Your task to perform on an android device: WHat are the new products by Samsung on eBay? Image 0: 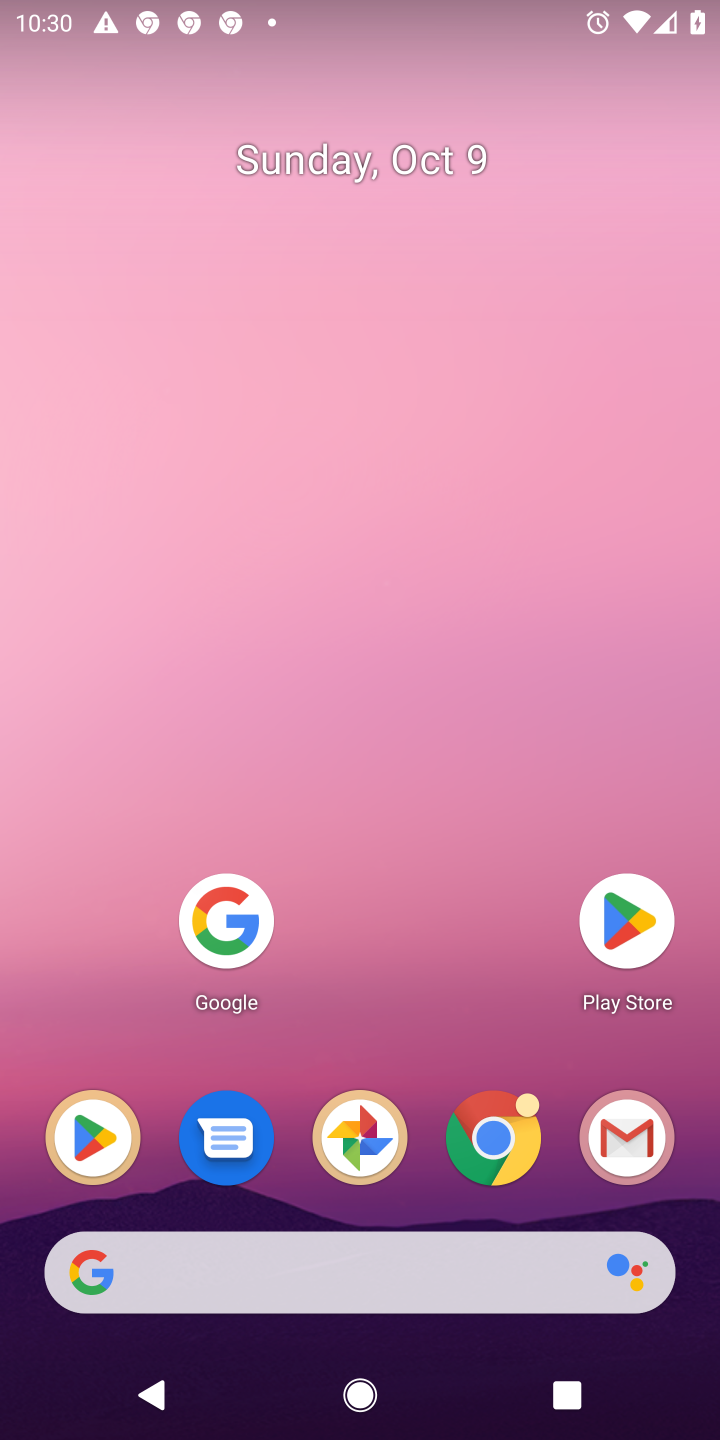
Step 0: click (242, 933)
Your task to perform on an android device: WHat are the new products by Samsung on eBay? Image 1: 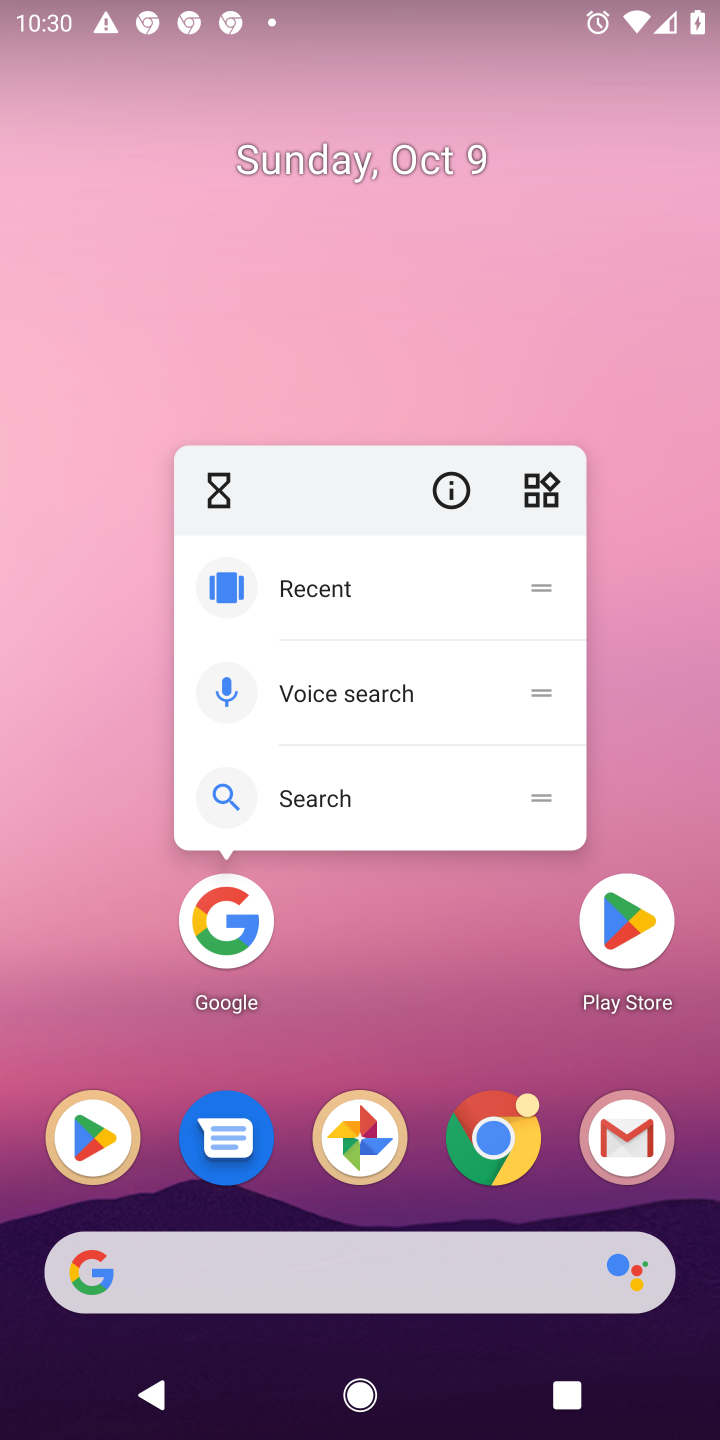
Step 1: click (232, 907)
Your task to perform on an android device: WHat are the new products by Samsung on eBay? Image 2: 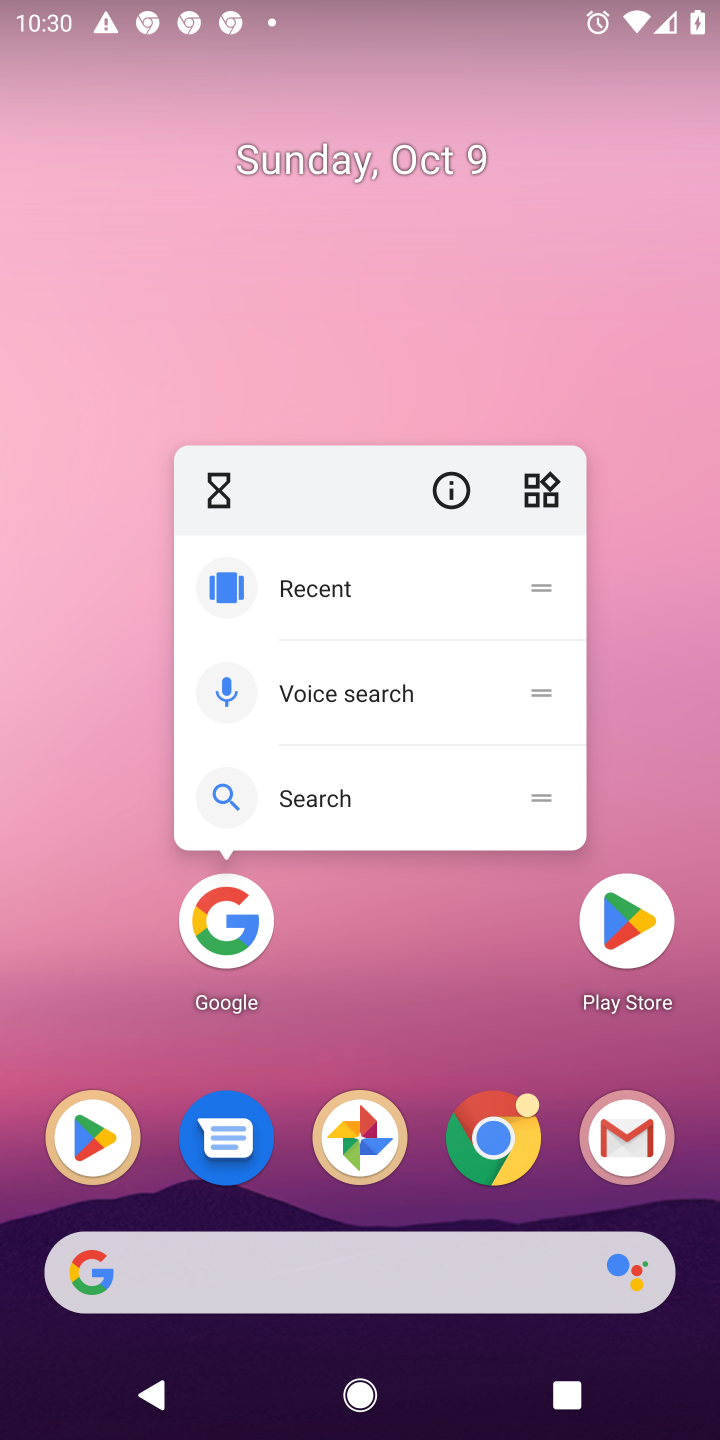
Step 2: click (232, 907)
Your task to perform on an android device: WHat are the new products by Samsung on eBay? Image 3: 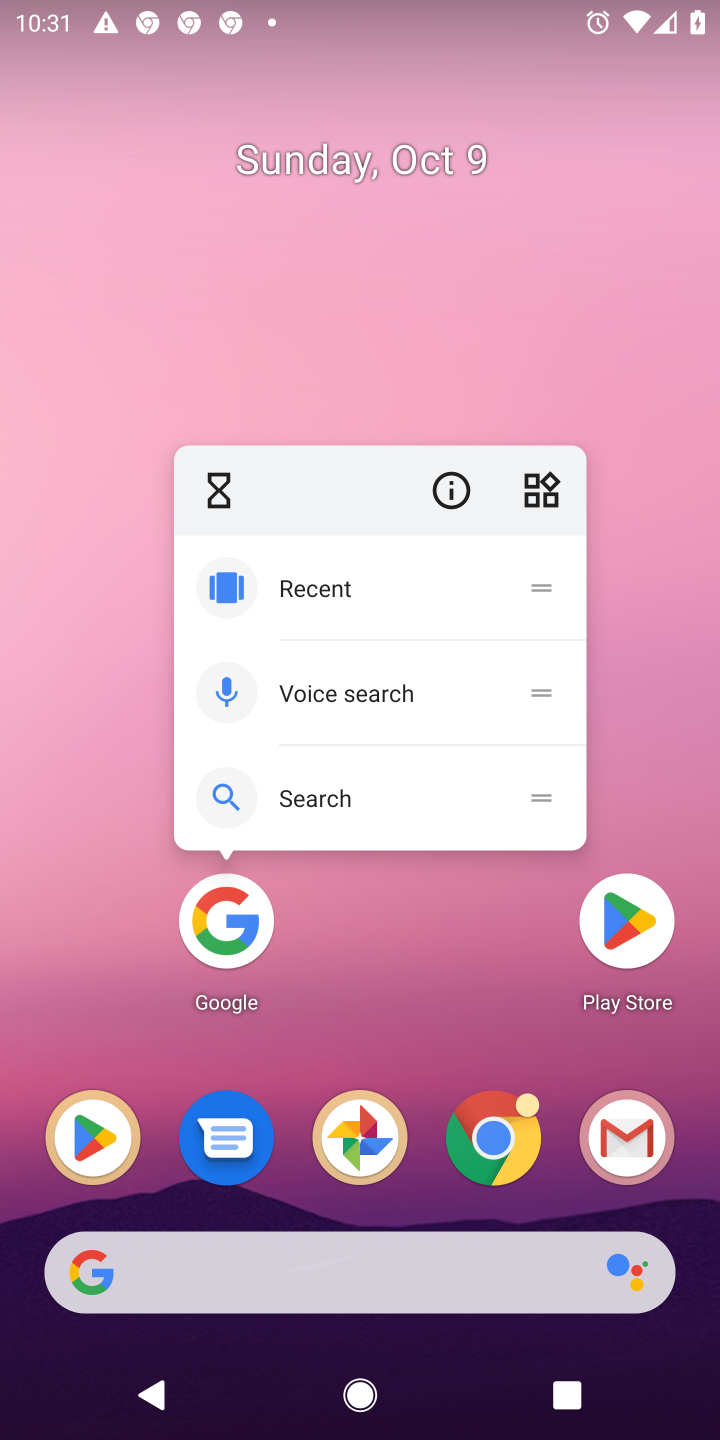
Step 3: click (221, 894)
Your task to perform on an android device: WHat are the new products by Samsung on eBay? Image 4: 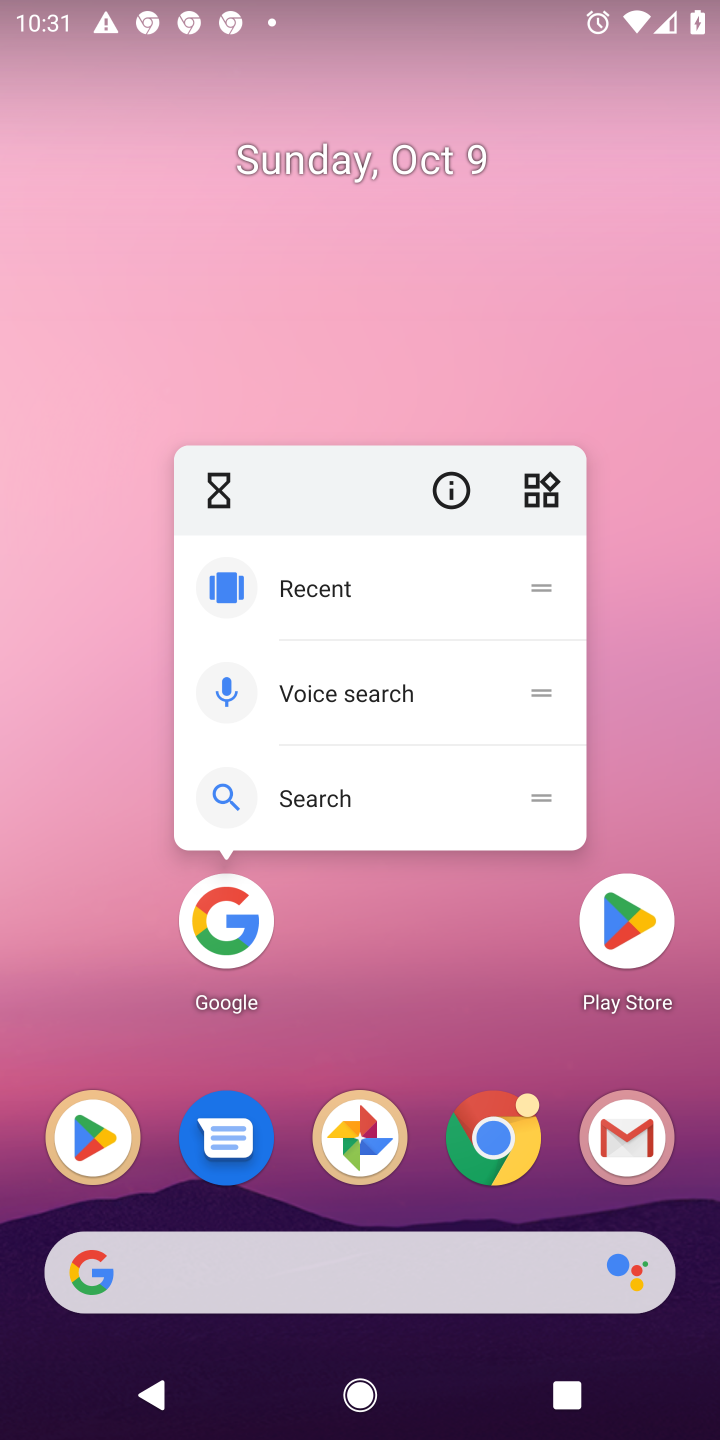
Step 4: click (221, 894)
Your task to perform on an android device: WHat are the new products by Samsung on eBay? Image 5: 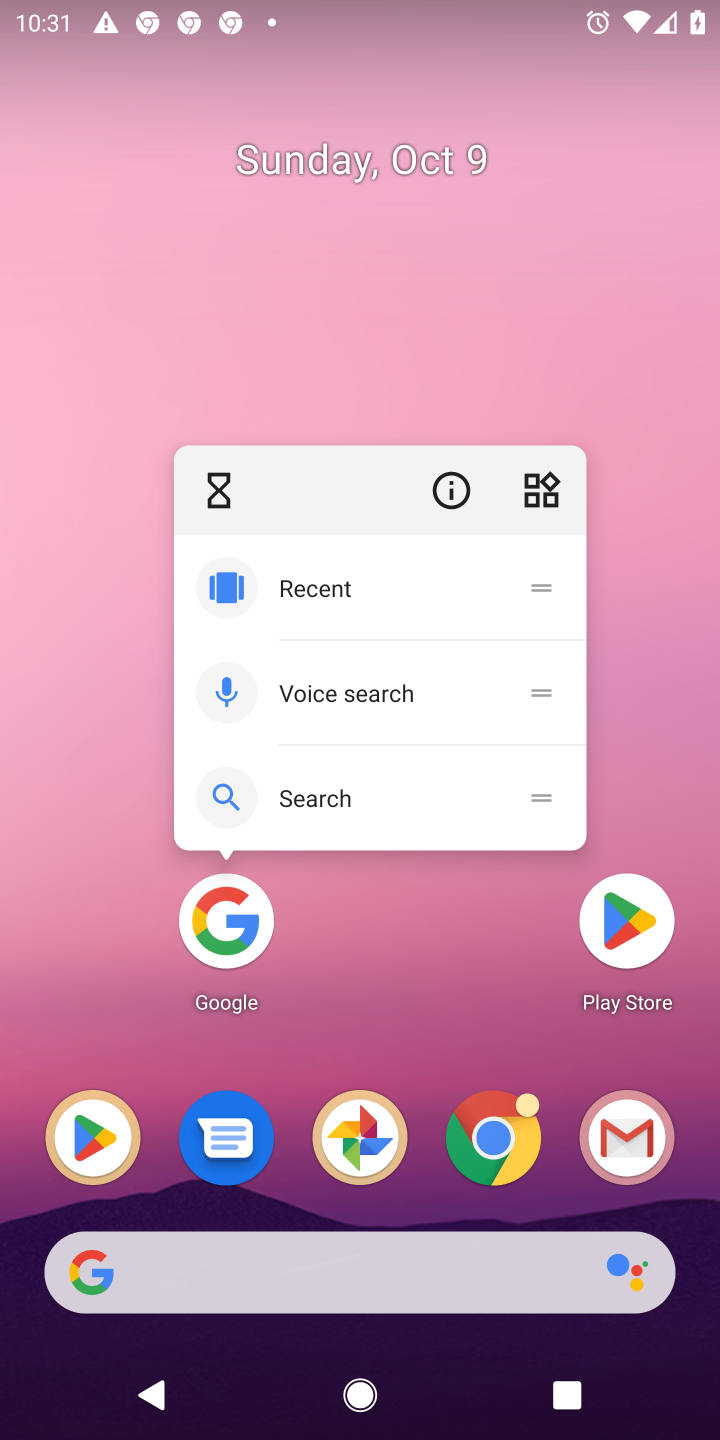
Step 5: click (221, 903)
Your task to perform on an android device: WHat are the new products by Samsung on eBay? Image 6: 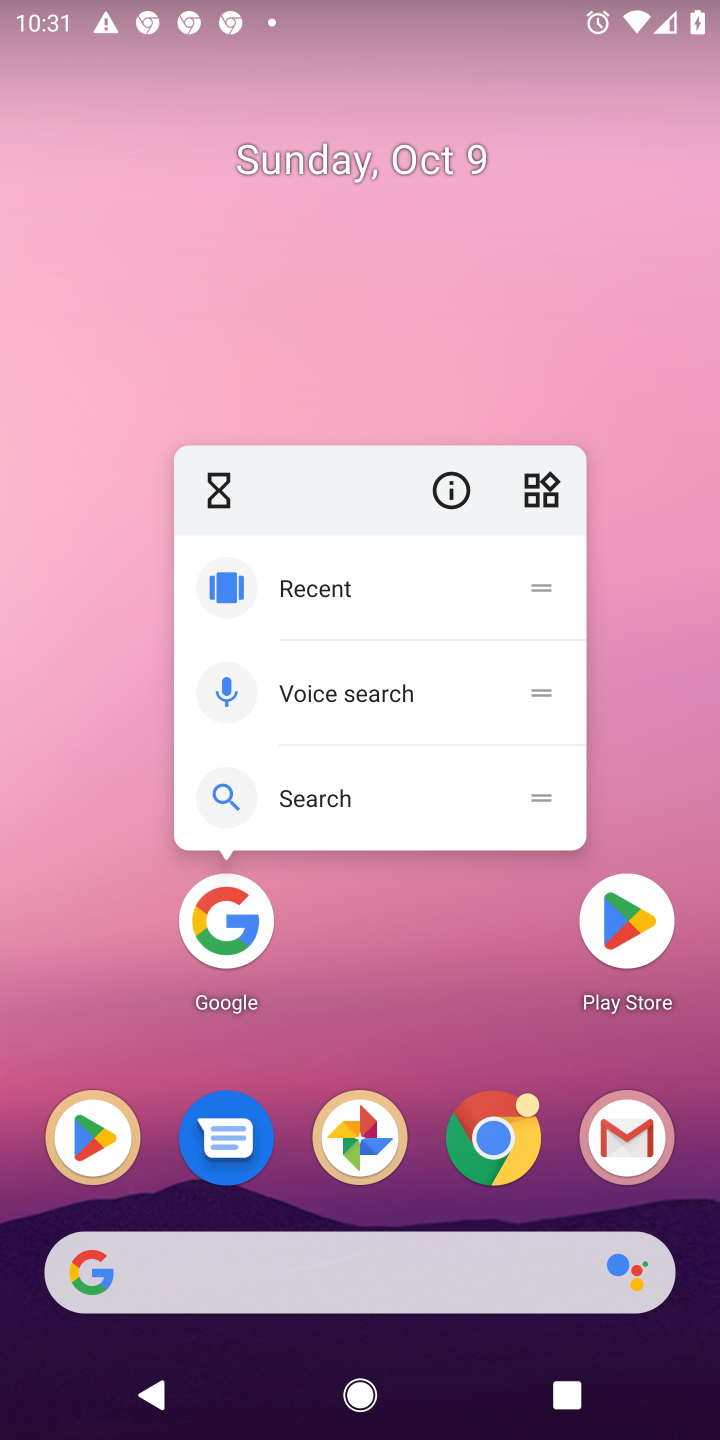
Step 6: click (221, 903)
Your task to perform on an android device: WHat are the new products by Samsung on eBay? Image 7: 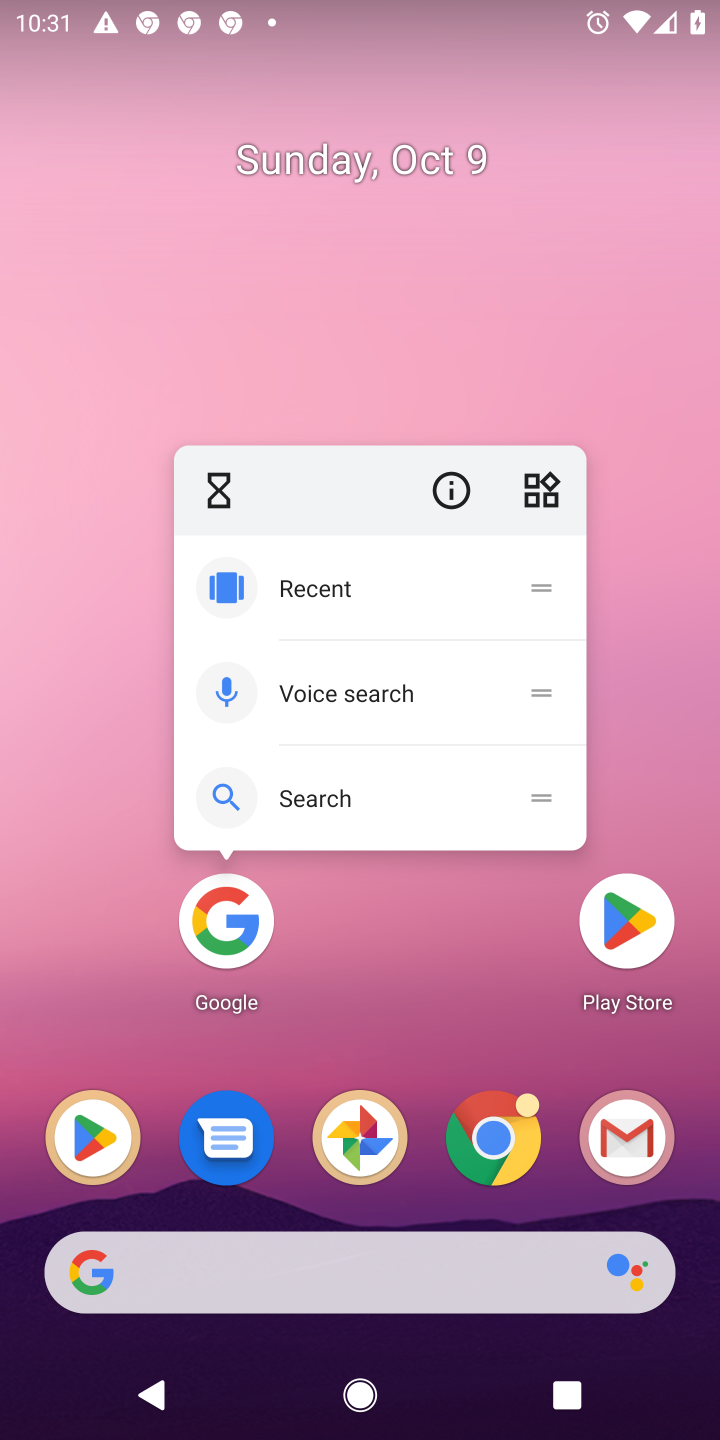
Step 7: click (221, 928)
Your task to perform on an android device: WHat are the new products by Samsung on eBay? Image 8: 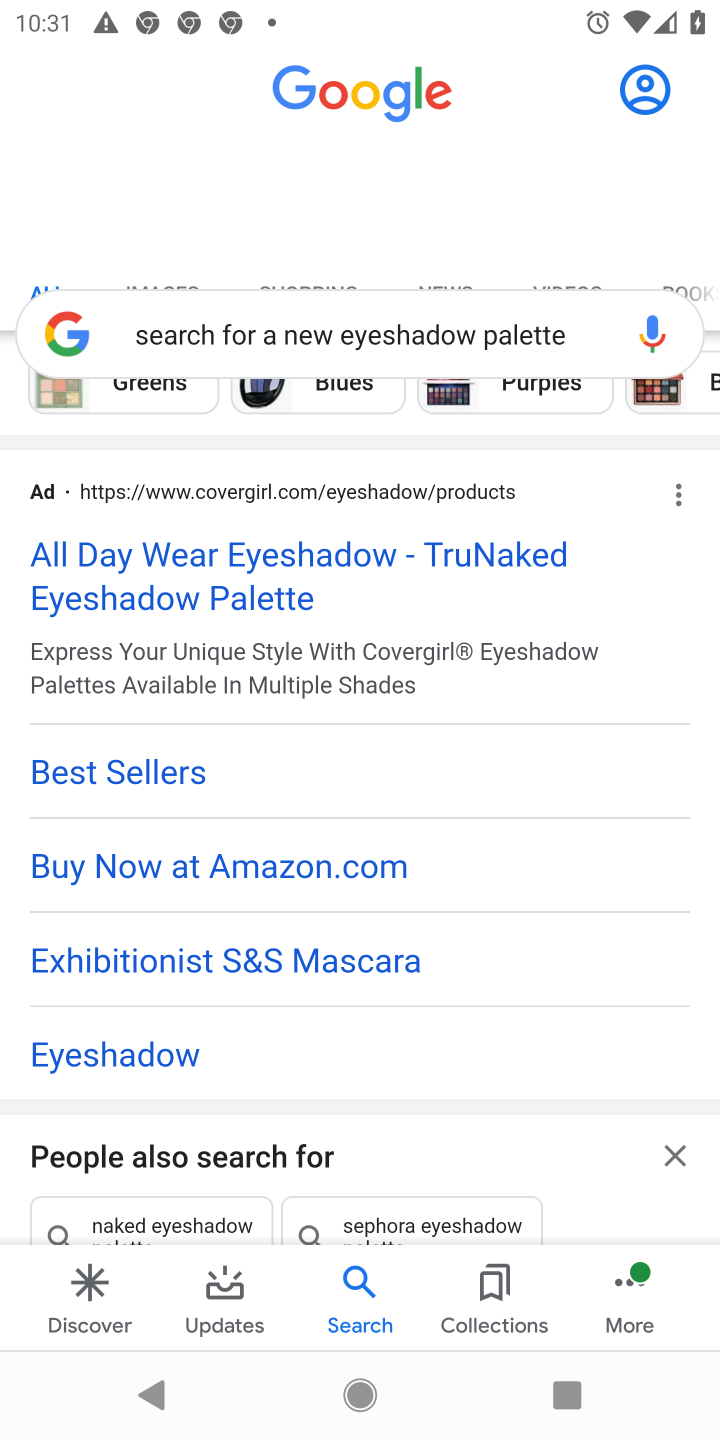
Step 8: click (373, 306)
Your task to perform on an android device: WHat are the new products by Samsung on eBay? Image 9: 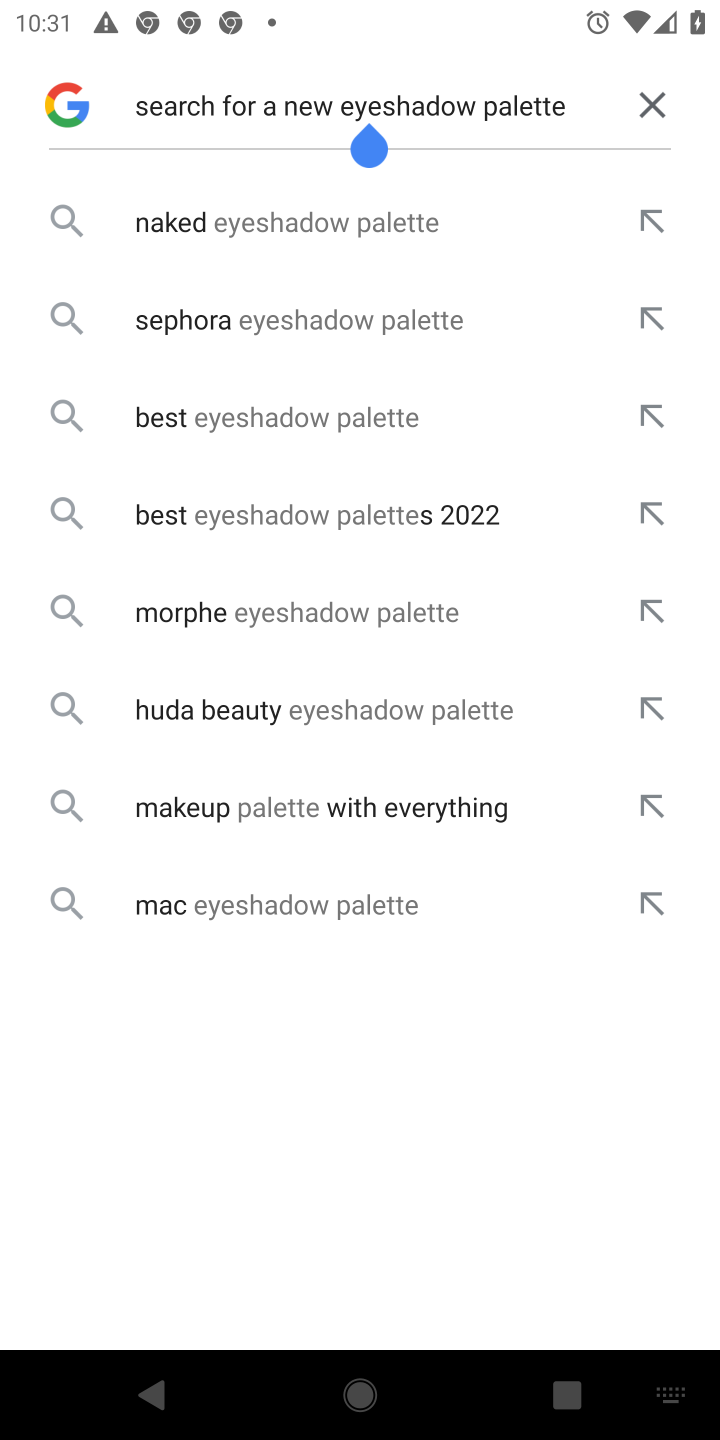
Step 9: click (642, 100)
Your task to perform on an android device: WHat are the new products by Samsung on eBay? Image 10: 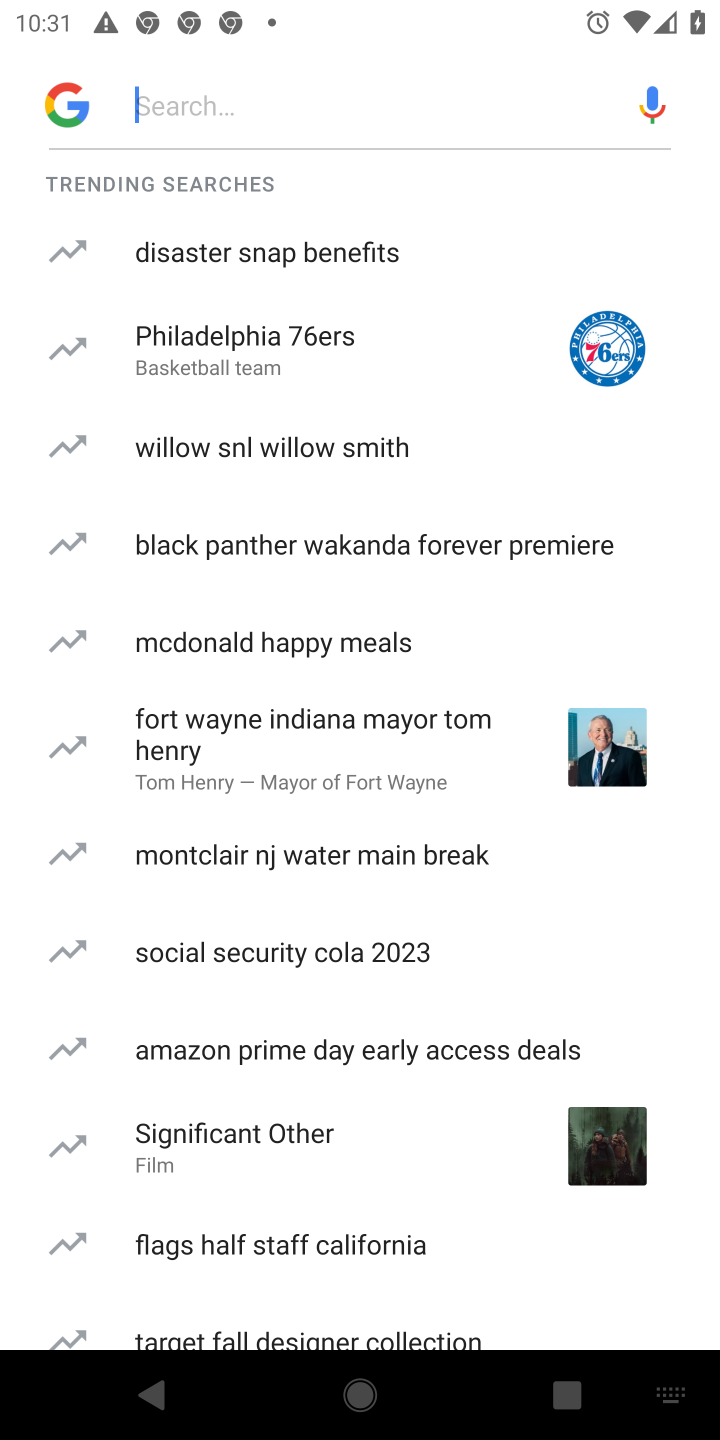
Step 10: click (195, 115)
Your task to perform on an android device: WHat are the new products by Samsung on eBay? Image 11: 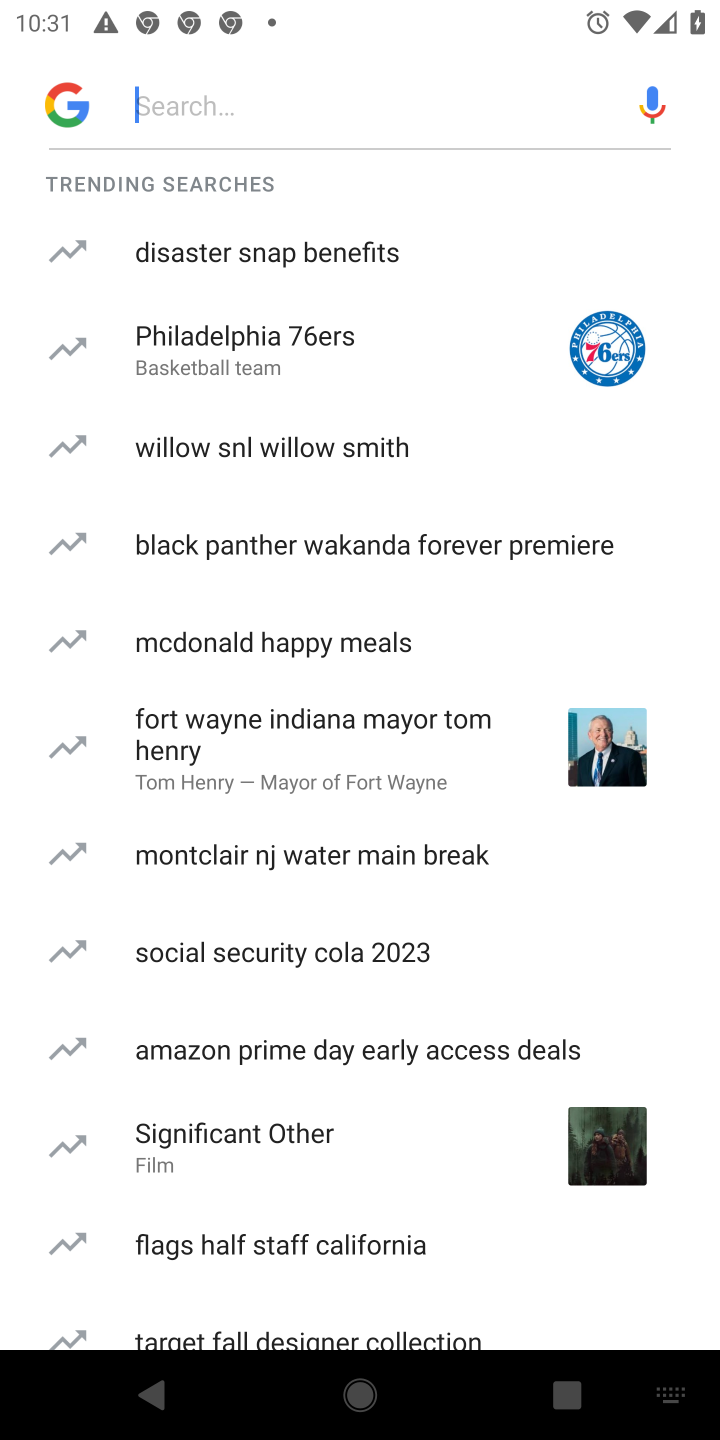
Step 11: type "WHat are the new products by Samsung on eBay? "
Your task to perform on an android device: WHat are the new products by Samsung on eBay? Image 12: 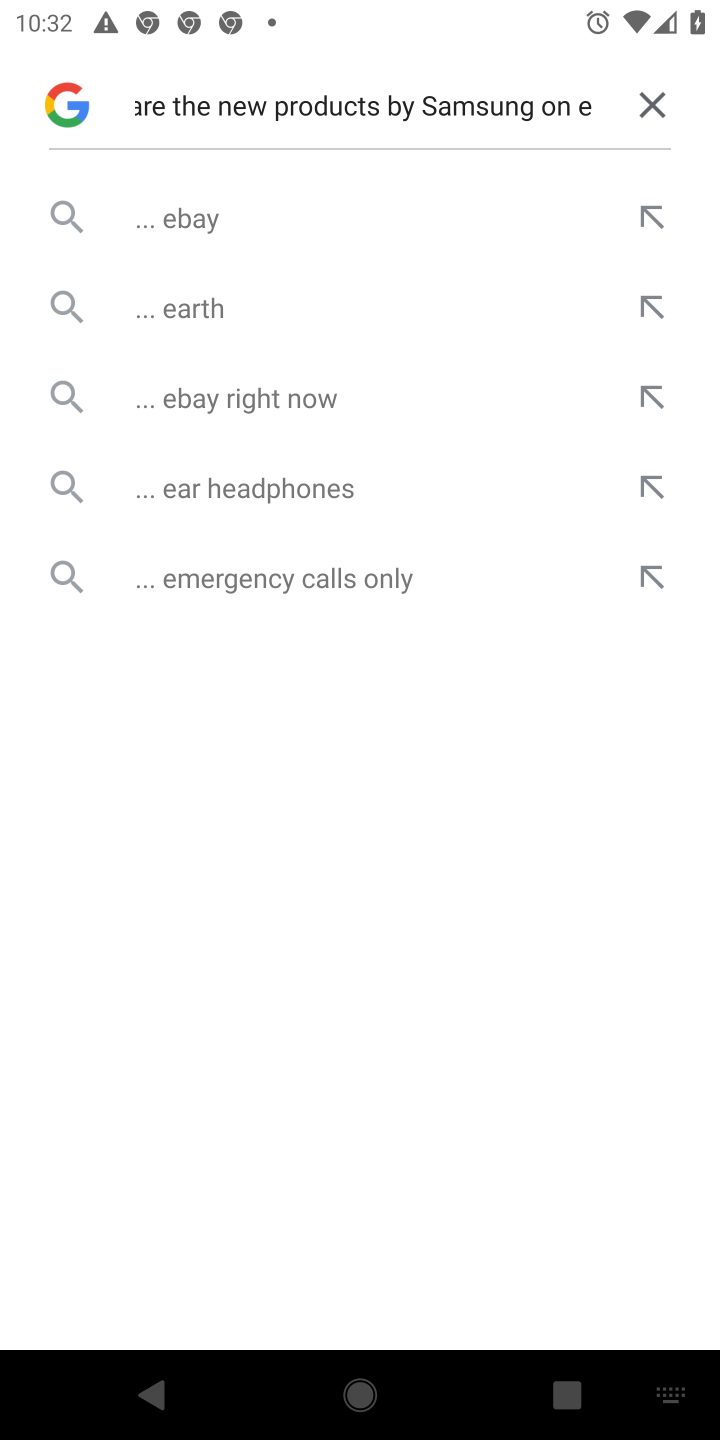
Step 12: click (226, 214)
Your task to perform on an android device: WHat are the new products by Samsung on eBay? Image 13: 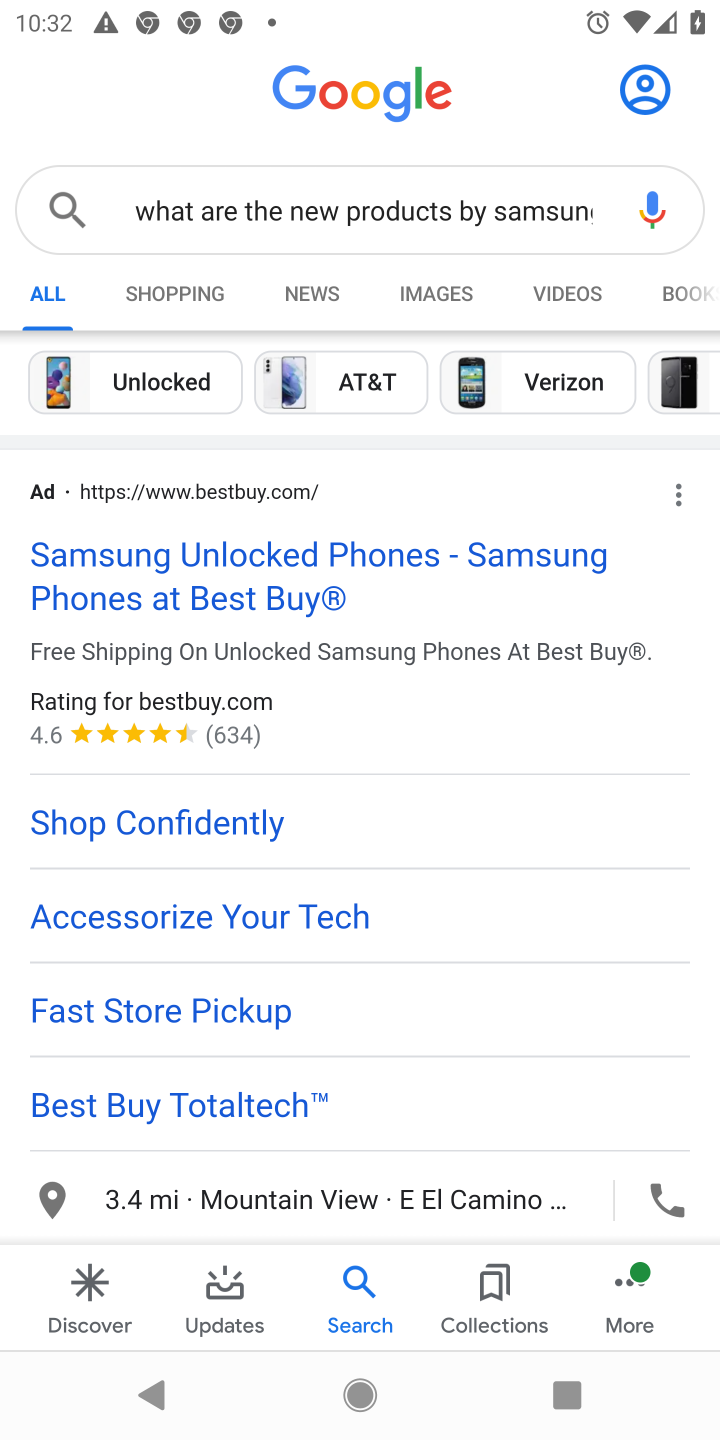
Step 13: click (226, 555)
Your task to perform on an android device: WHat are the new products by Samsung on eBay? Image 14: 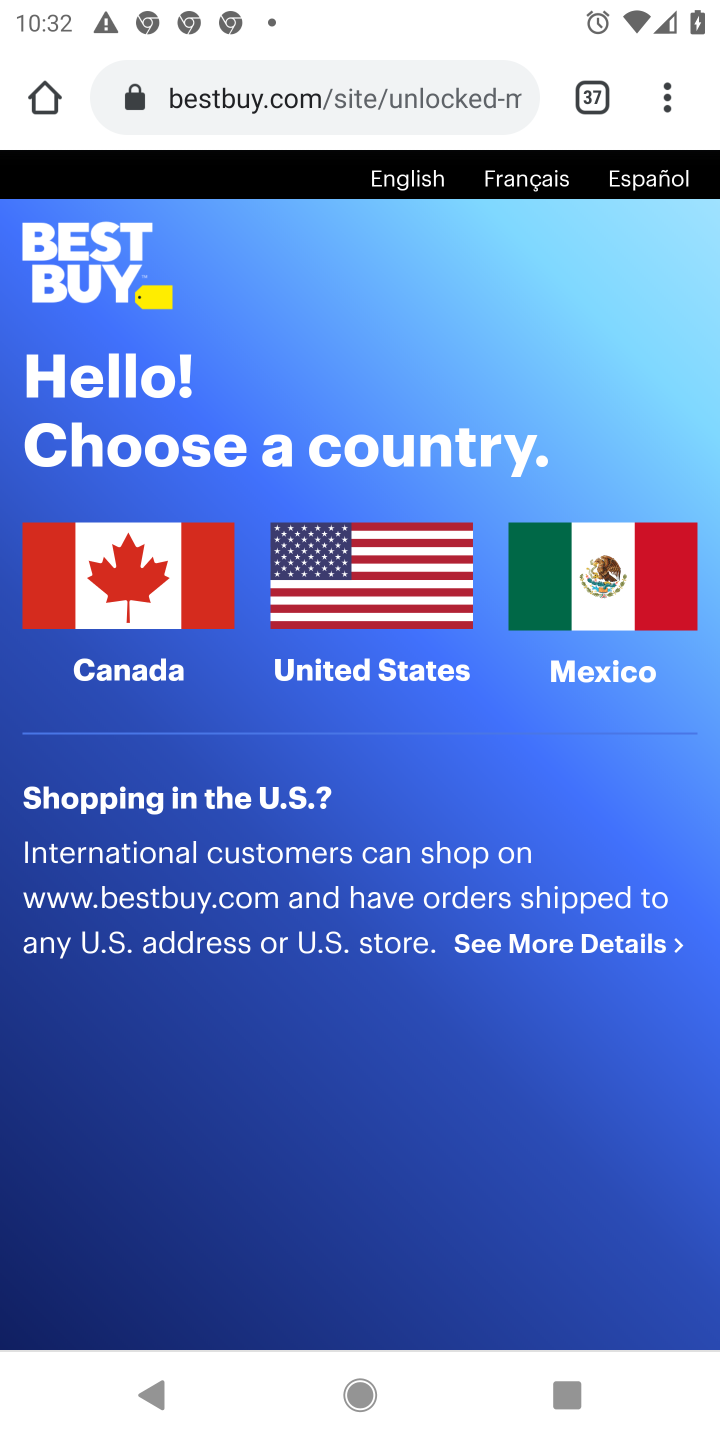
Step 14: drag from (296, 1158) to (400, 371)
Your task to perform on an android device: WHat are the new products by Samsung on eBay? Image 15: 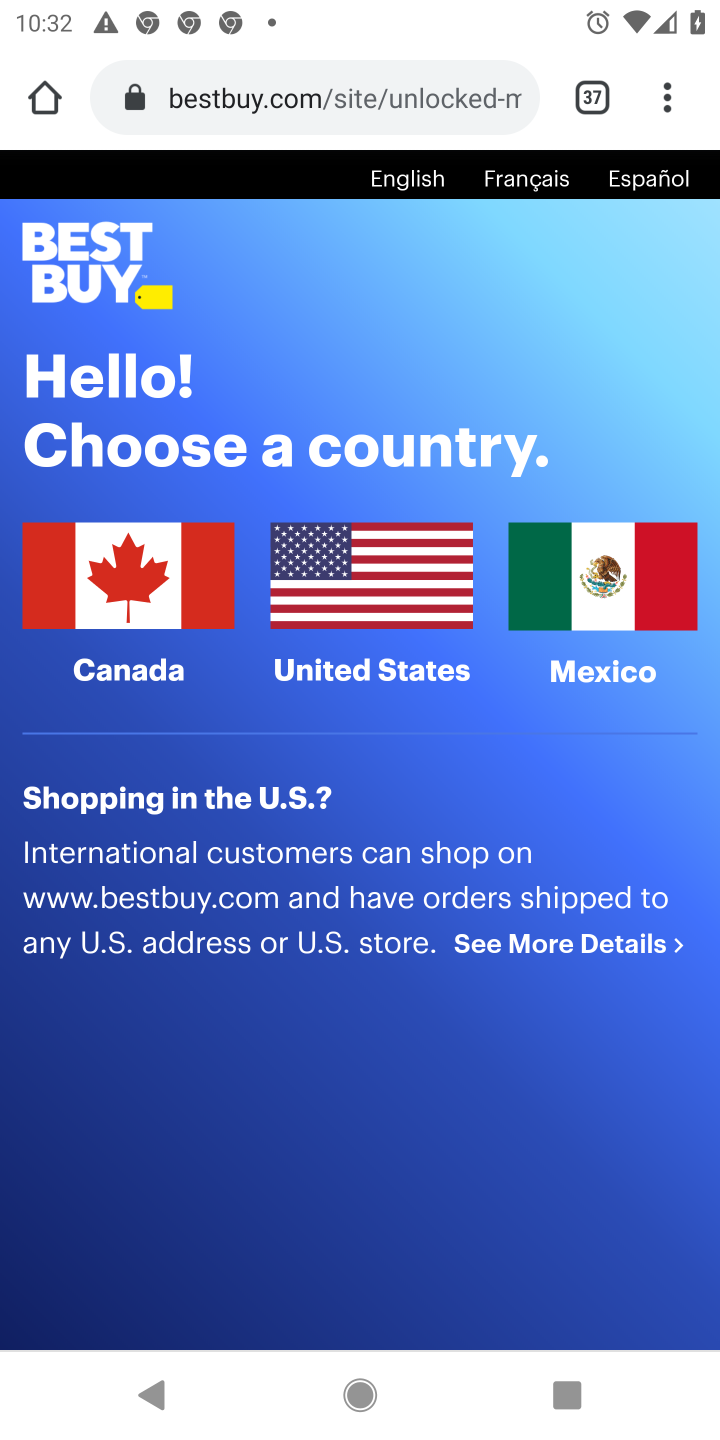
Step 15: click (316, 560)
Your task to perform on an android device: WHat are the new products by Samsung on eBay? Image 16: 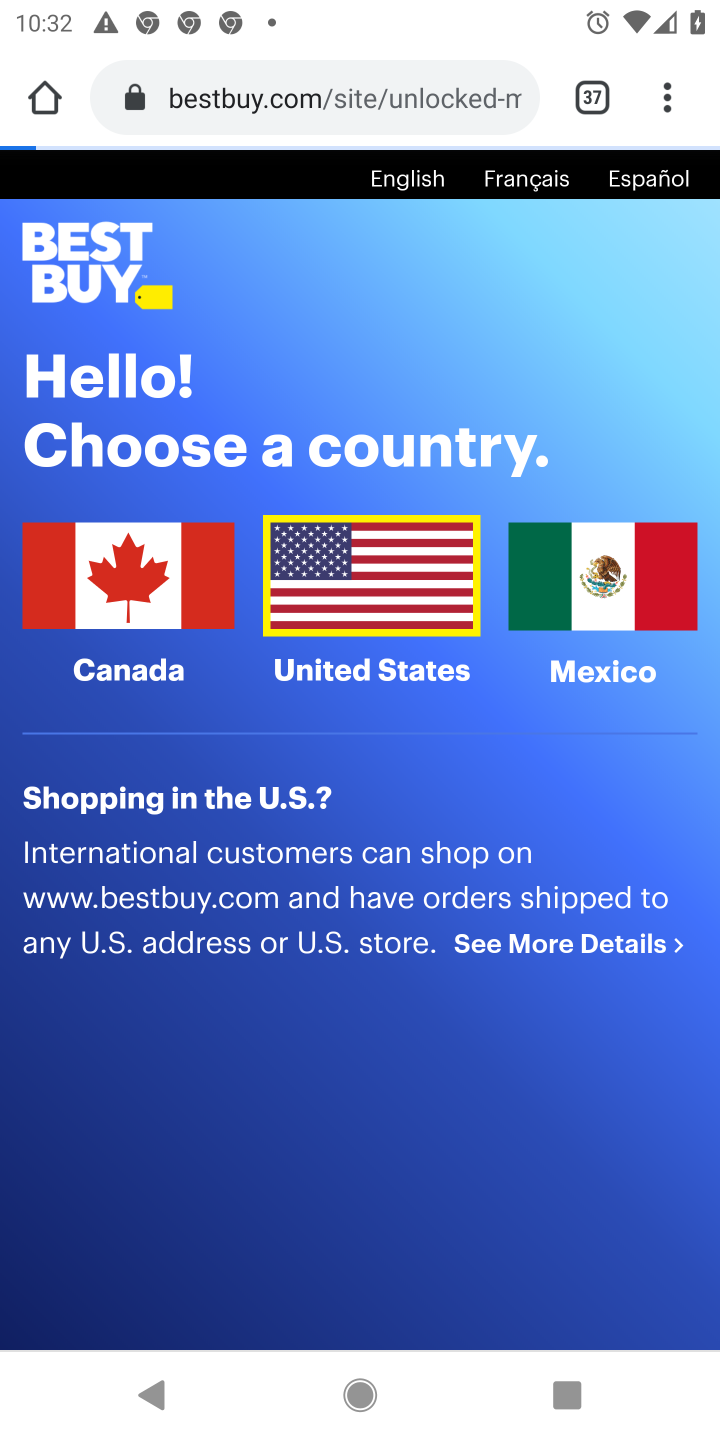
Step 16: click (316, 560)
Your task to perform on an android device: WHat are the new products by Samsung on eBay? Image 17: 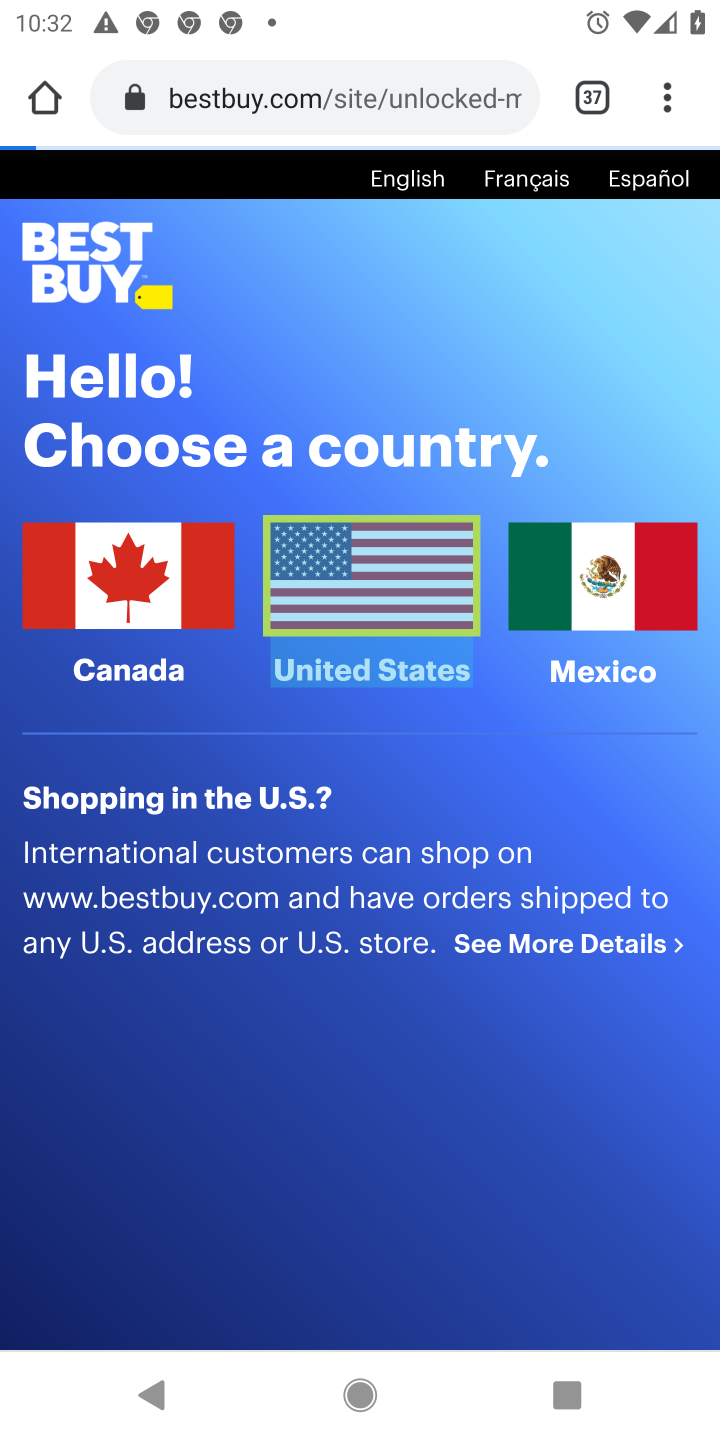
Step 17: click (316, 560)
Your task to perform on an android device: WHat are the new products by Samsung on eBay? Image 18: 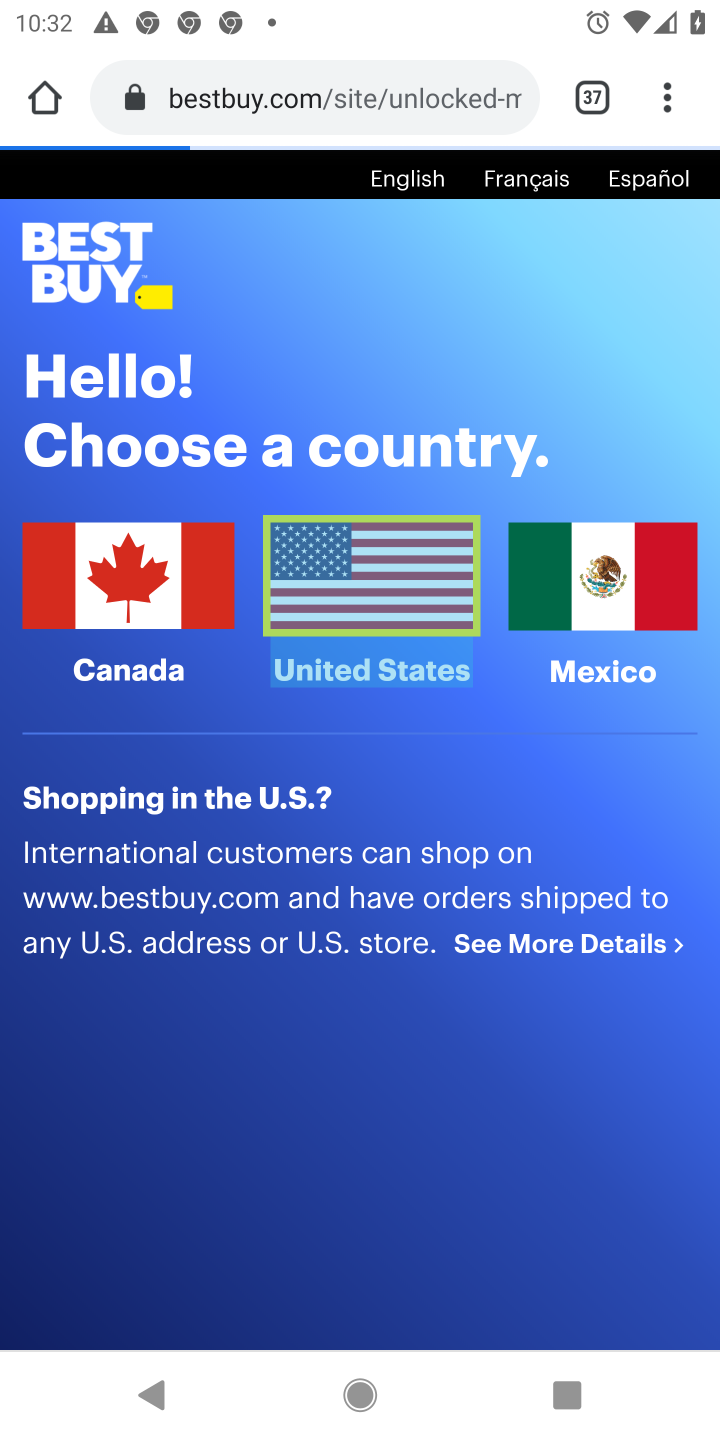
Step 18: click (316, 560)
Your task to perform on an android device: WHat are the new products by Samsung on eBay? Image 19: 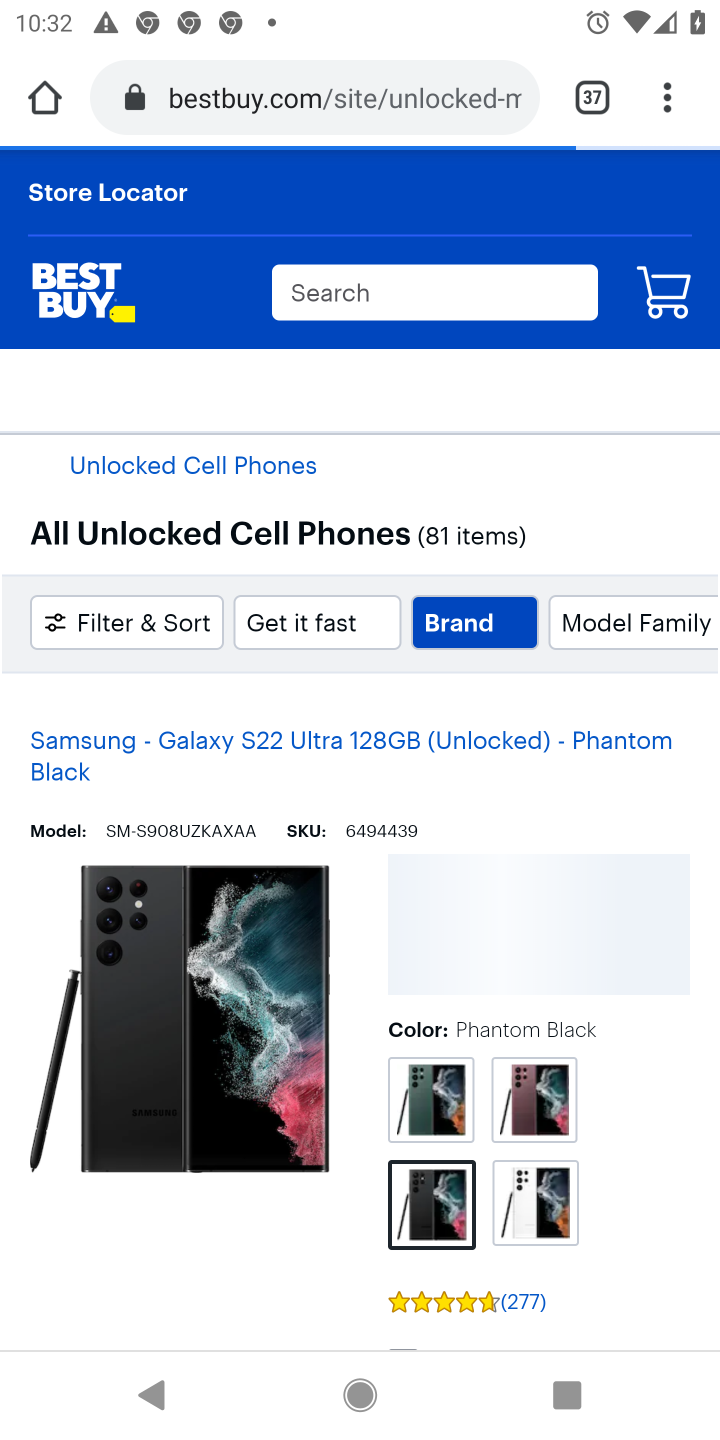
Step 19: drag from (270, 1197) to (358, 414)
Your task to perform on an android device: WHat are the new products by Samsung on eBay? Image 20: 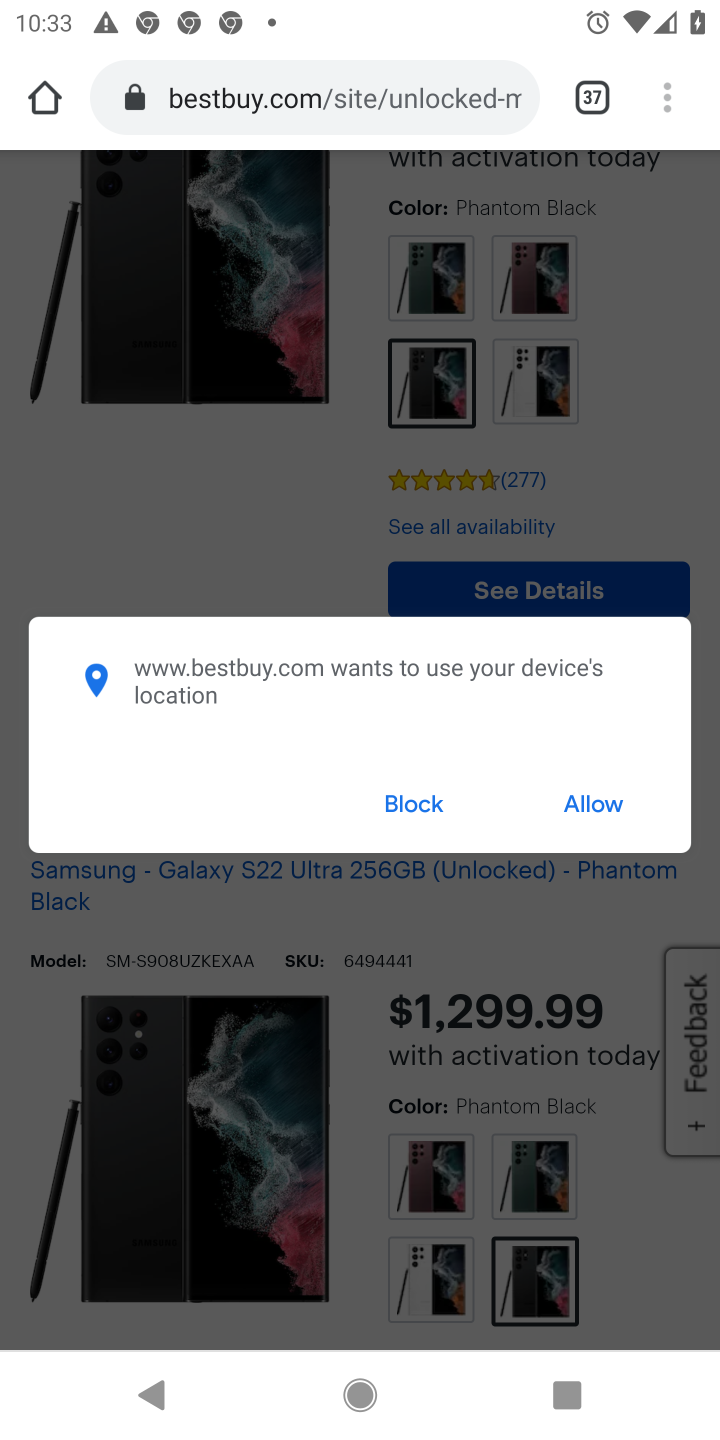
Step 20: click (607, 798)
Your task to perform on an android device: WHat are the new products by Samsung on eBay? Image 21: 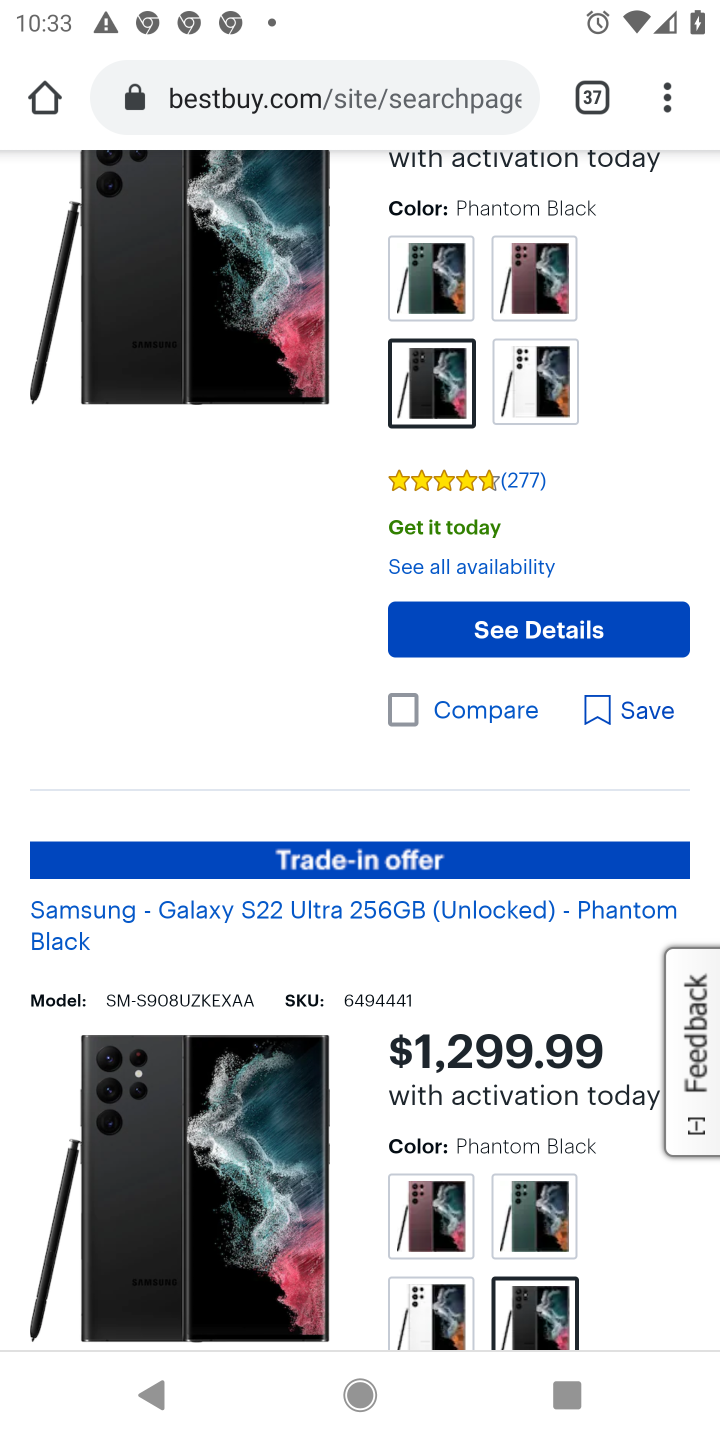
Step 21: task complete